Your task to perform on an android device: What is the recent news? Image 0: 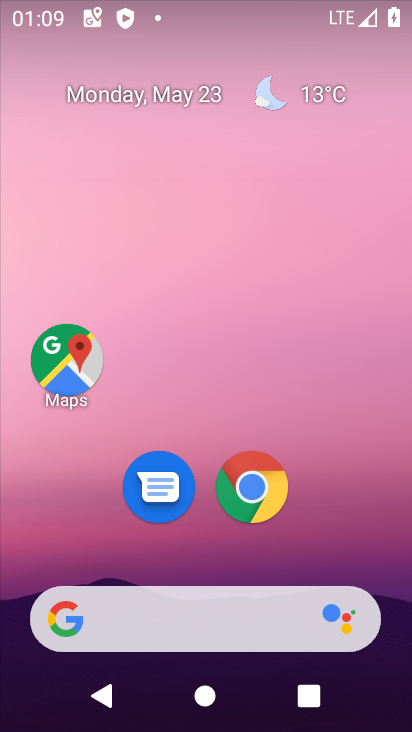
Step 0: drag from (0, 273) to (392, 306)
Your task to perform on an android device: What is the recent news? Image 1: 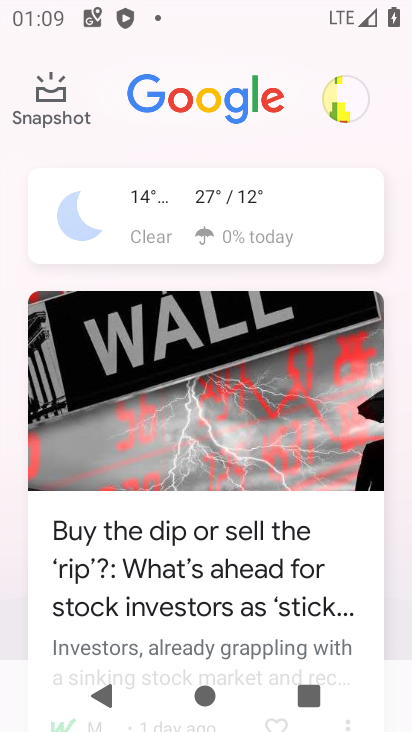
Step 1: task complete